Your task to perform on an android device: toggle notifications settings in the gmail app Image 0: 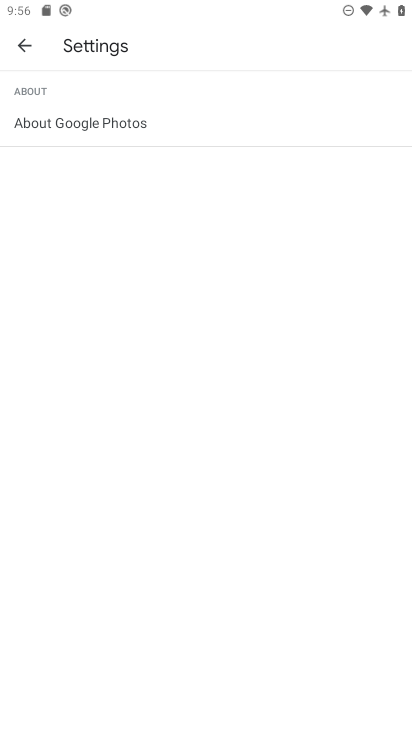
Step 0: press home button
Your task to perform on an android device: toggle notifications settings in the gmail app Image 1: 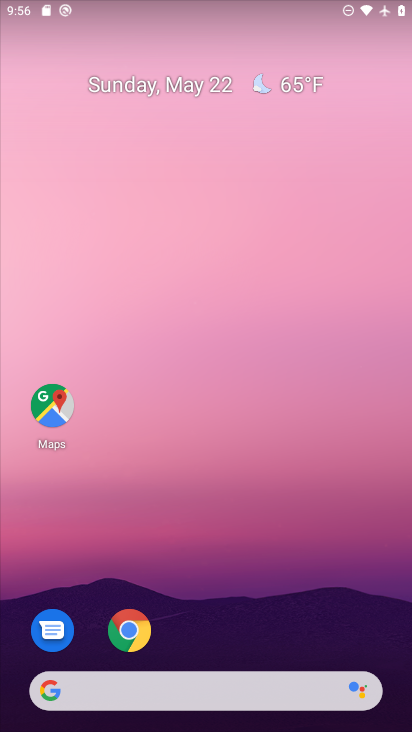
Step 1: drag from (135, 689) to (248, 126)
Your task to perform on an android device: toggle notifications settings in the gmail app Image 2: 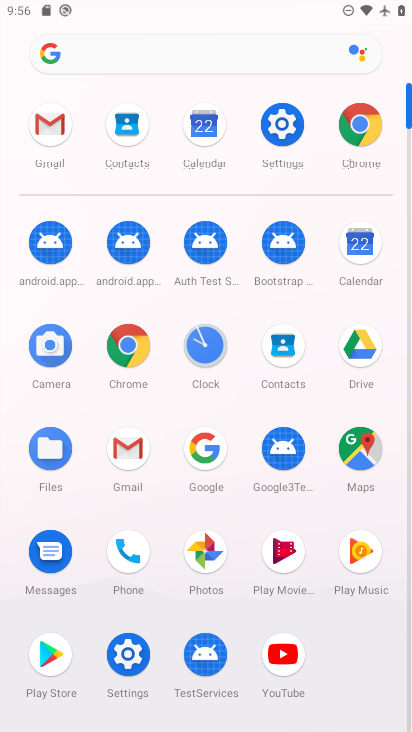
Step 2: click (54, 130)
Your task to perform on an android device: toggle notifications settings in the gmail app Image 3: 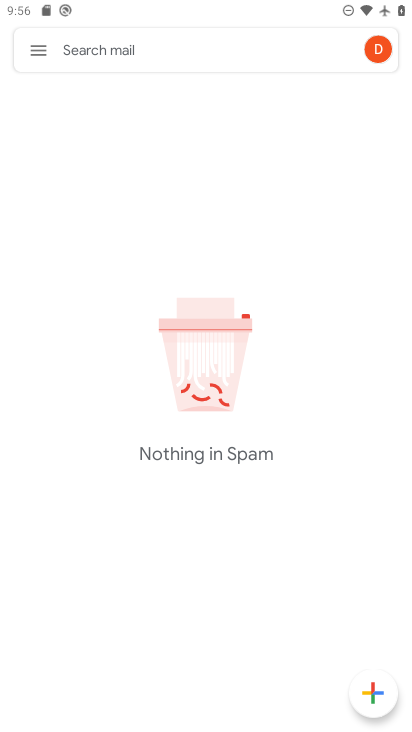
Step 3: click (35, 45)
Your task to perform on an android device: toggle notifications settings in the gmail app Image 4: 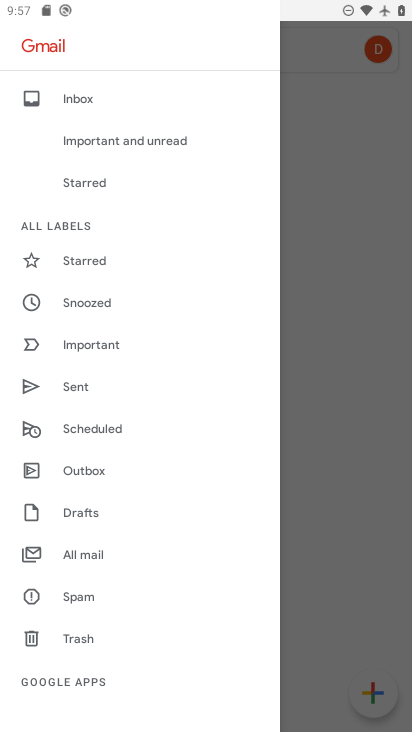
Step 4: drag from (106, 616) to (209, 248)
Your task to perform on an android device: toggle notifications settings in the gmail app Image 5: 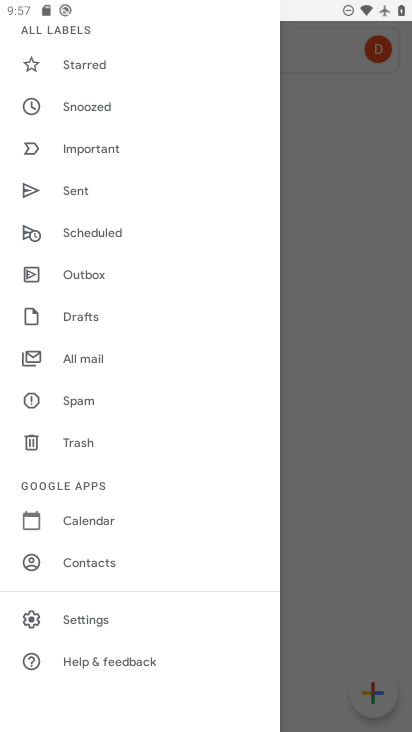
Step 5: click (98, 623)
Your task to perform on an android device: toggle notifications settings in the gmail app Image 6: 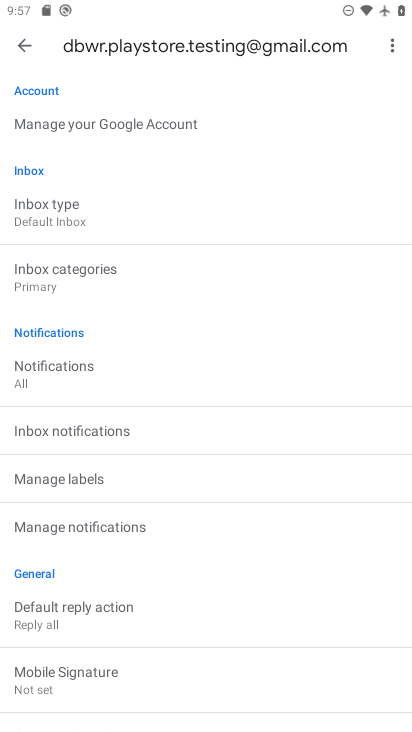
Step 6: click (51, 370)
Your task to perform on an android device: toggle notifications settings in the gmail app Image 7: 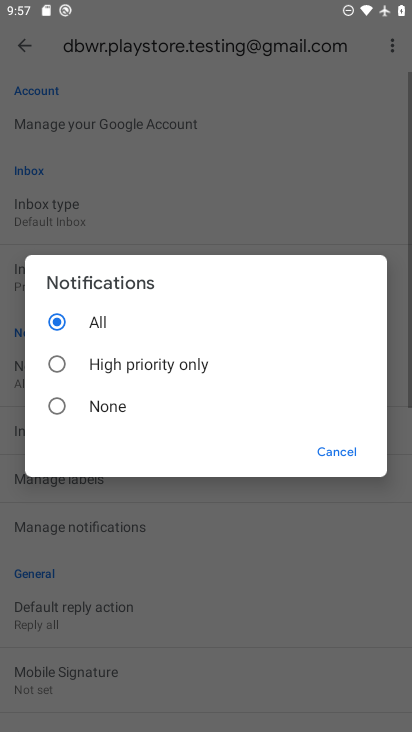
Step 7: click (56, 403)
Your task to perform on an android device: toggle notifications settings in the gmail app Image 8: 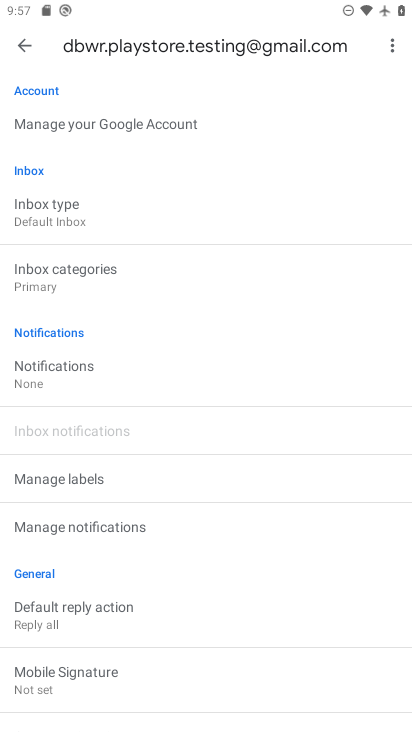
Step 8: task complete